Your task to perform on an android device: open sync settings in chrome Image 0: 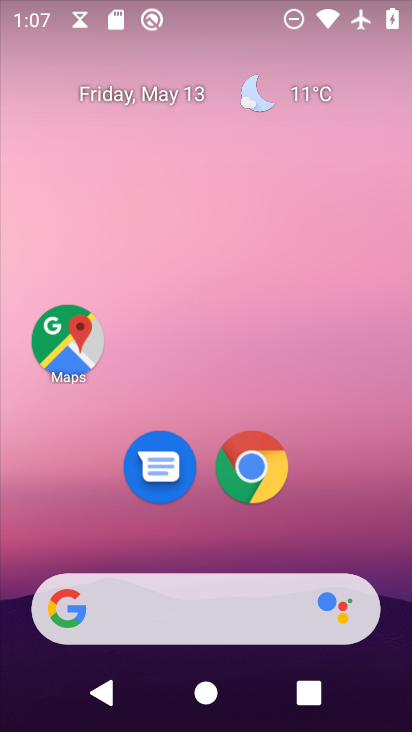
Step 0: click (279, 476)
Your task to perform on an android device: open sync settings in chrome Image 1: 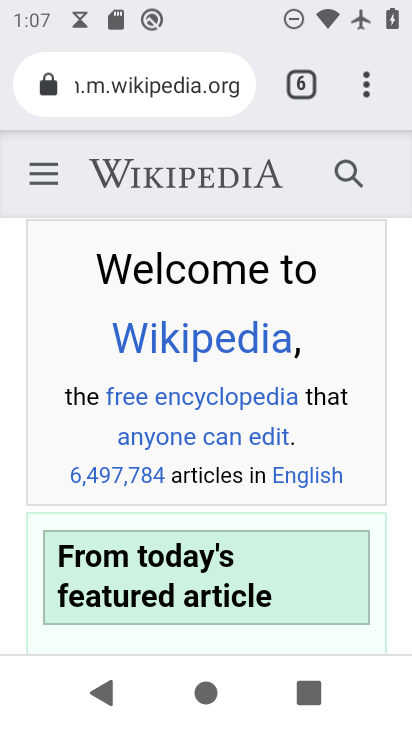
Step 1: click (362, 80)
Your task to perform on an android device: open sync settings in chrome Image 2: 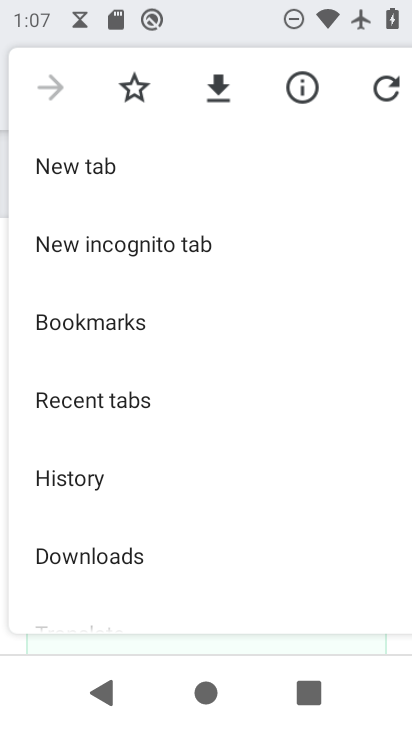
Step 2: drag from (177, 523) to (124, 154)
Your task to perform on an android device: open sync settings in chrome Image 3: 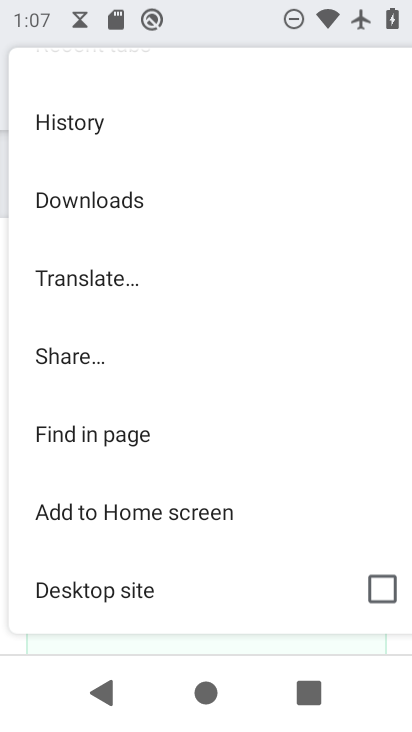
Step 3: drag from (151, 540) to (142, 159)
Your task to perform on an android device: open sync settings in chrome Image 4: 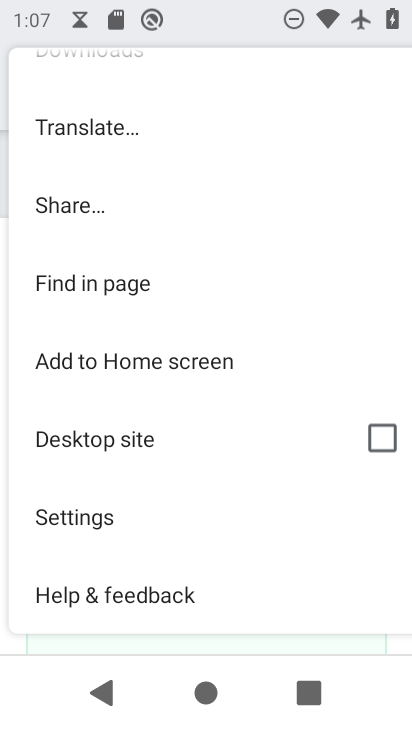
Step 4: click (150, 529)
Your task to perform on an android device: open sync settings in chrome Image 5: 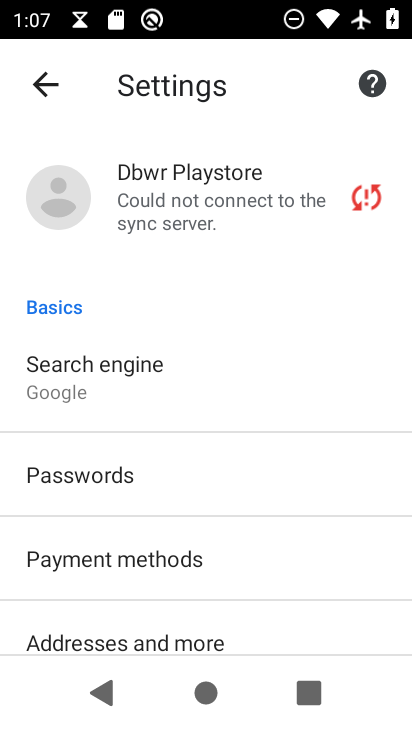
Step 5: drag from (181, 531) to (195, 176)
Your task to perform on an android device: open sync settings in chrome Image 6: 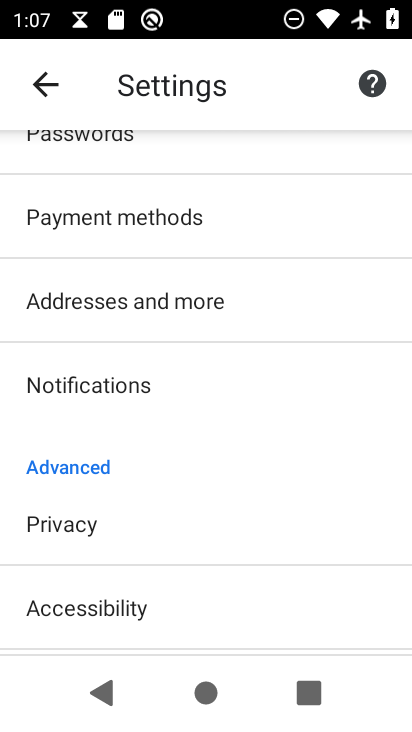
Step 6: drag from (181, 607) to (178, 241)
Your task to perform on an android device: open sync settings in chrome Image 7: 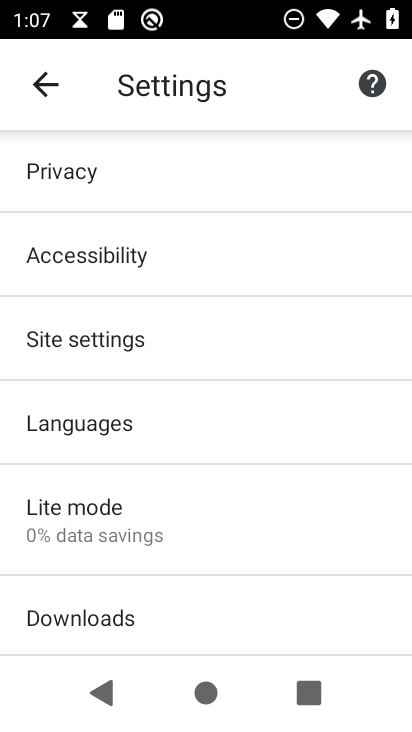
Step 7: click (115, 338)
Your task to perform on an android device: open sync settings in chrome Image 8: 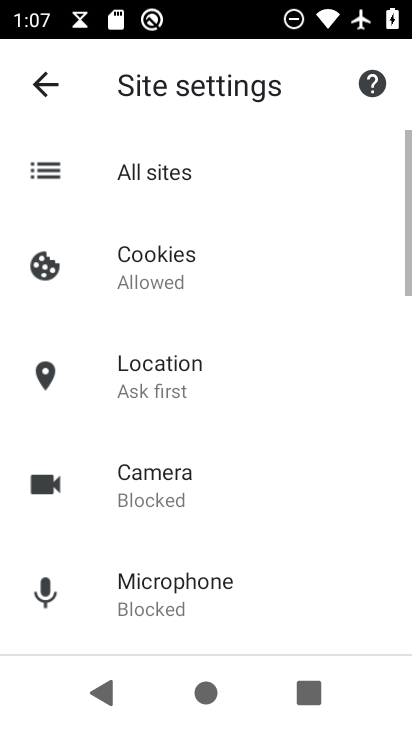
Step 8: drag from (260, 562) to (226, 77)
Your task to perform on an android device: open sync settings in chrome Image 9: 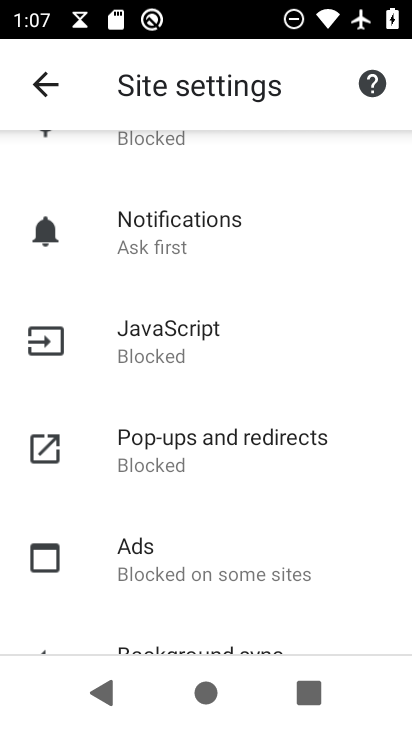
Step 9: drag from (231, 521) to (196, 264)
Your task to perform on an android device: open sync settings in chrome Image 10: 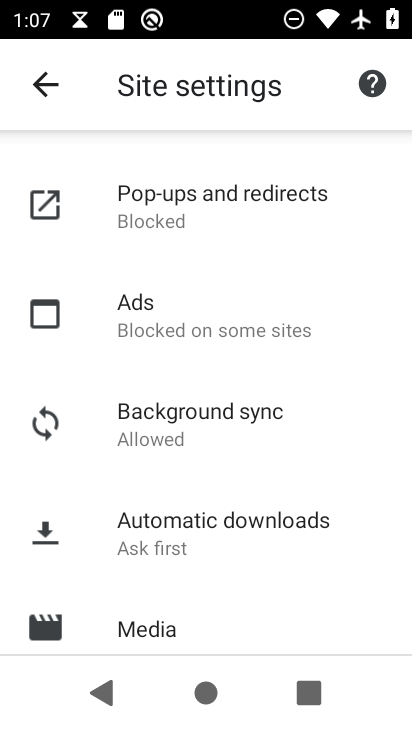
Step 10: click (200, 417)
Your task to perform on an android device: open sync settings in chrome Image 11: 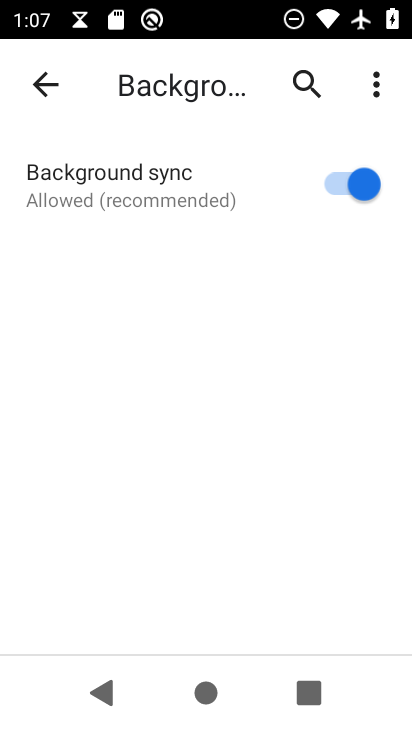
Step 11: task complete